Your task to perform on an android device: Open Yahoo.com Image 0: 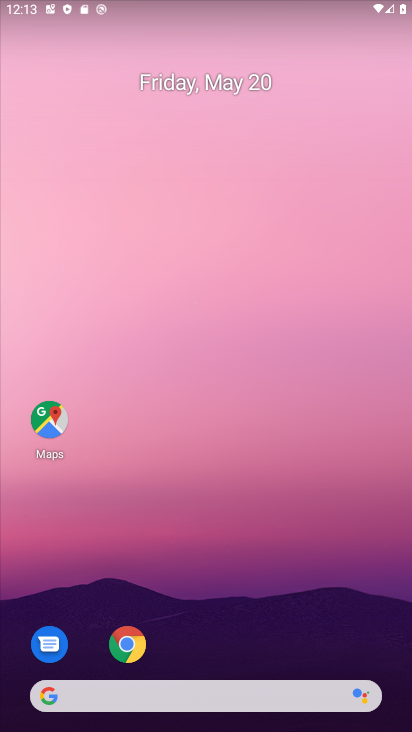
Step 0: click (126, 651)
Your task to perform on an android device: Open Yahoo.com Image 1: 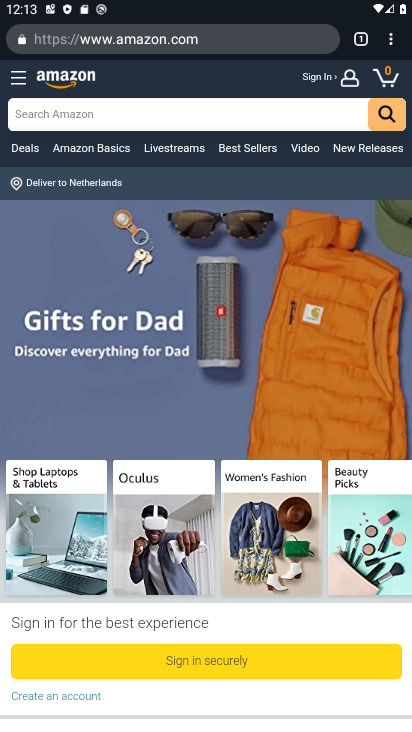
Step 1: click (99, 39)
Your task to perform on an android device: Open Yahoo.com Image 2: 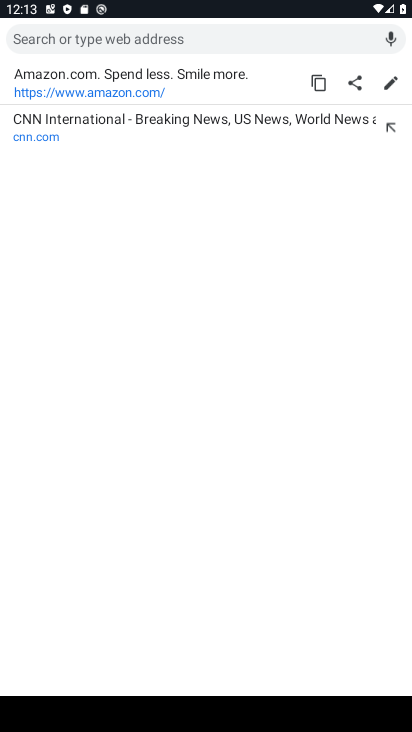
Step 2: type "yahoo.com"
Your task to perform on an android device: Open Yahoo.com Image 3: 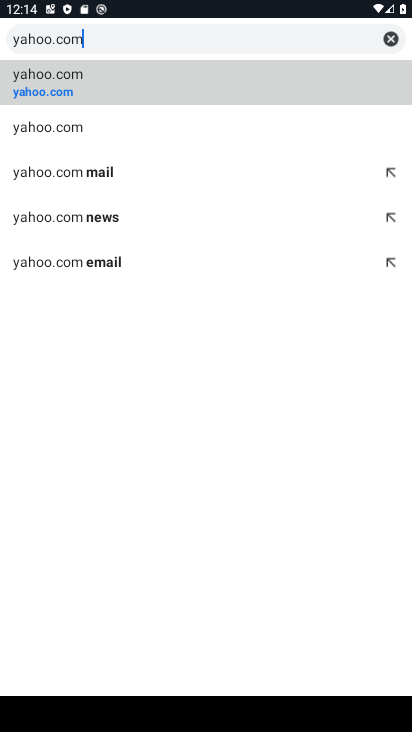
Step 3: click (50, 130)
Your task to perform on an android device: Open Yahoo.com Image 4: 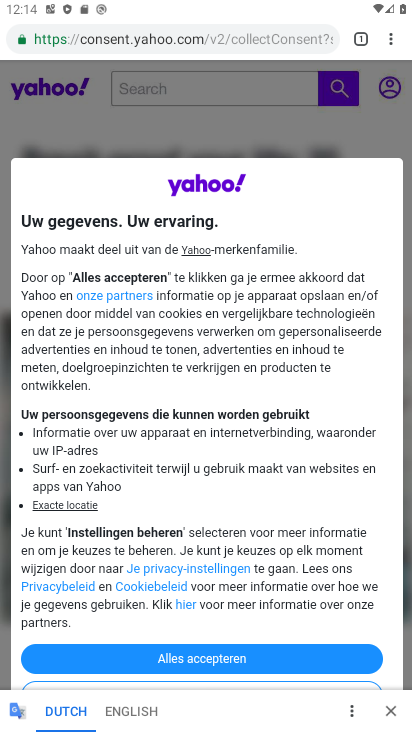
Step 4: task complete